Your task to perform on an android device: Open the Play Movies app and select the watchlist tab. Image 0: 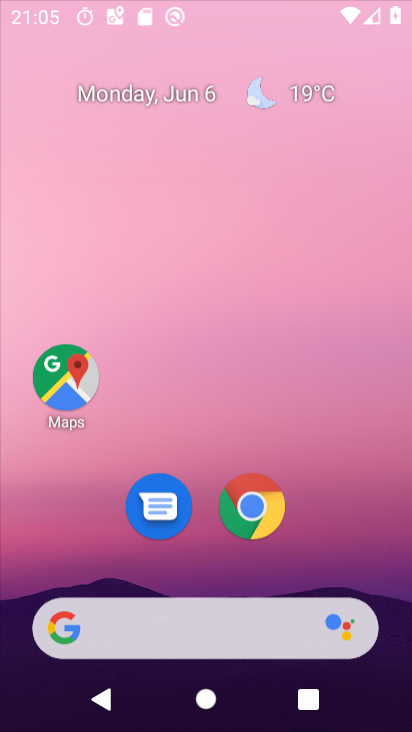
Step 0: press home button
Your task to perform on an android device: Open the Play Movies app and select the watchlist tab. Image 1: 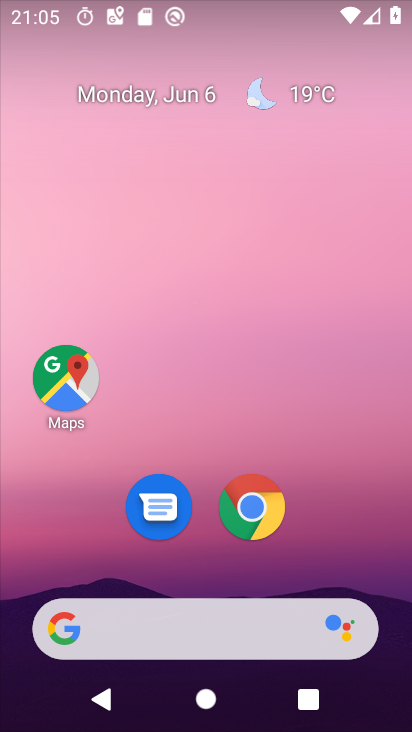
Step 1: drag from (322, 485) to (320, 127)
Your task to perform on an android device: Open the Play Movies app and select the watchlist tab. Image 2: 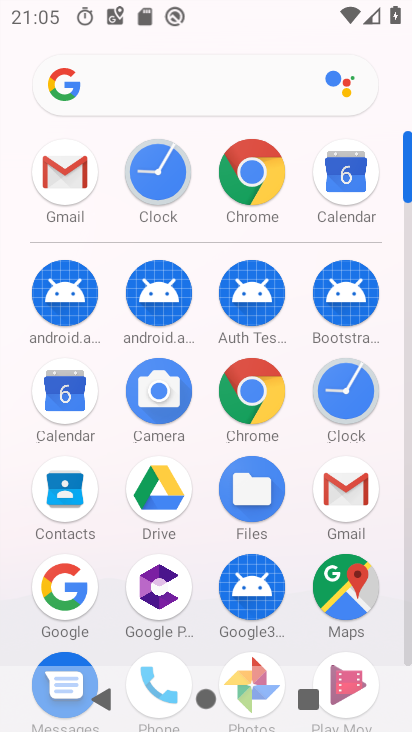
Step 2: drag from (249, 602) to (282, 193)
Your task to perform on an android device: Open the Play Movies app and select the watchlist tab. Image 3: 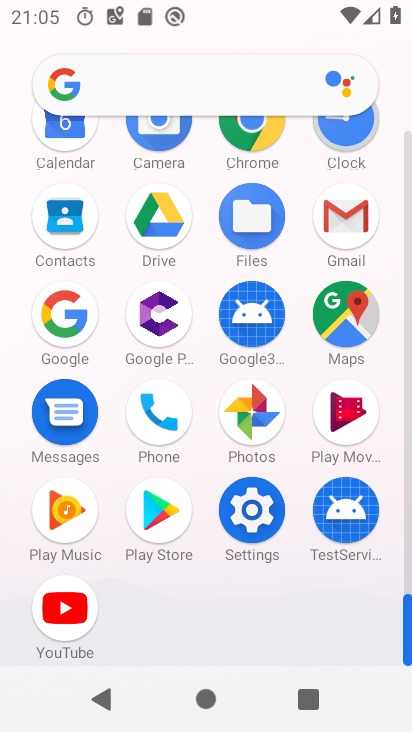
Step 3: click (361, 432)
Your task to perform on an android device: Open the Play Movies app and select the watchlist tab. Image 4: 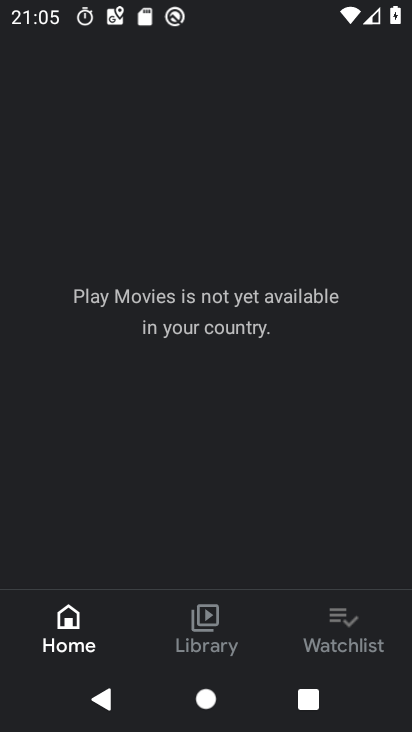
Step 4: click (333, 620)
Your task to perform on an android device: Open the Play Movies app and select the watchlist tab. Image 5: 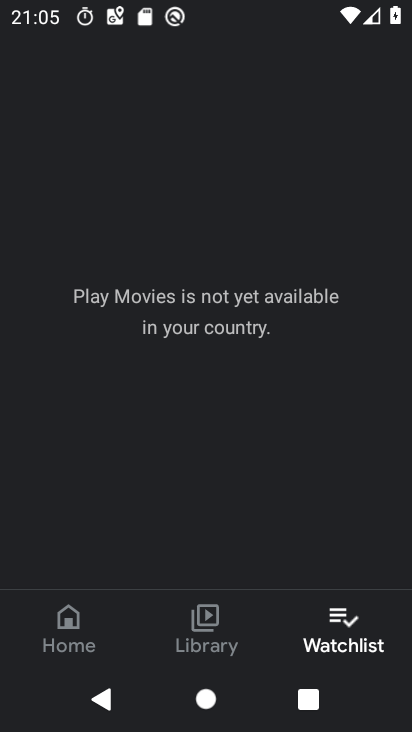
Step 5: task complete